Your task to perform on an android device: turn on sleep mode Image 0: 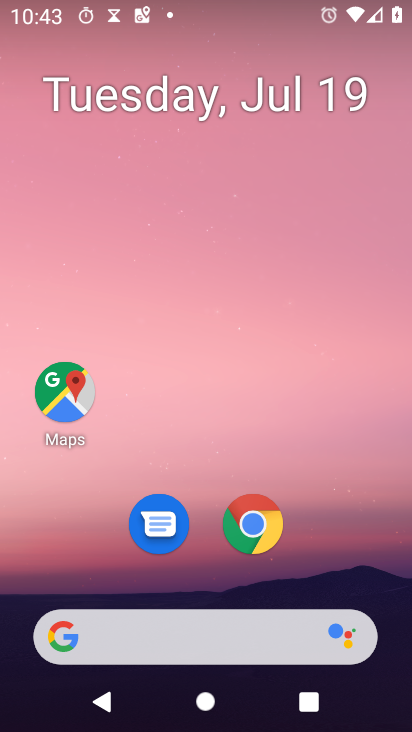
Step 0: drag from (202, 632) to (238, 174)
Your task to perform on an android device: turn on sleep mode Image 1: 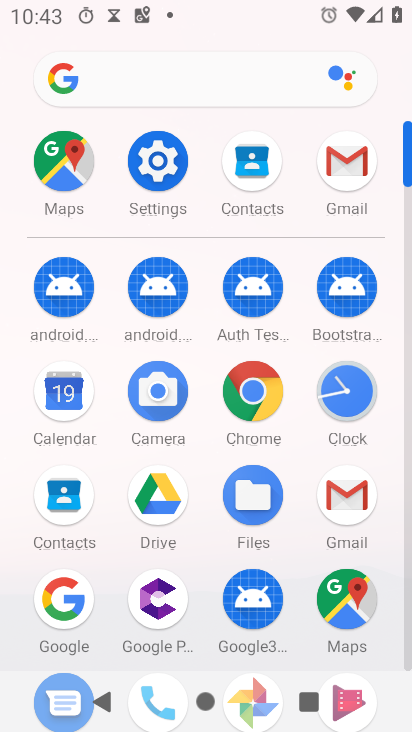
Step 1: click (158, 163)
Your task to perform on an android device: turn on sleep mode Image 2: 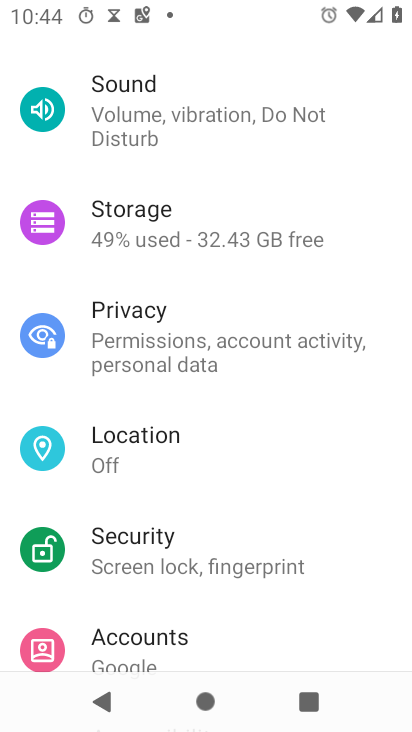
Step 2: drag from (280, 185) to (306, 672)
Your task to perform on an android device: turn on sleep mode Image 3: 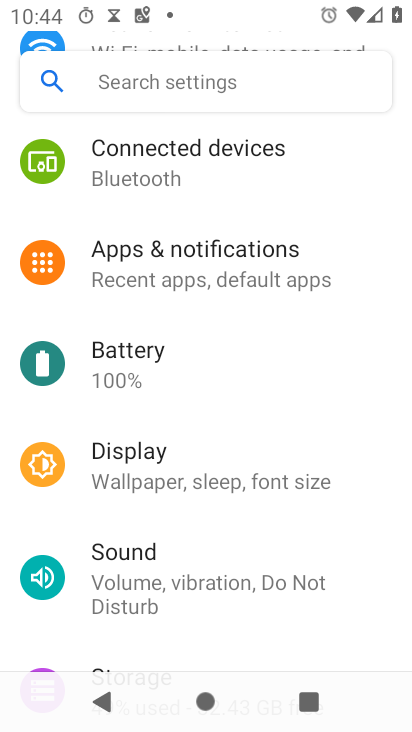
Step 3: click (152, 467)
Your task to perform on an android device: turn on sleep mode Image 4: 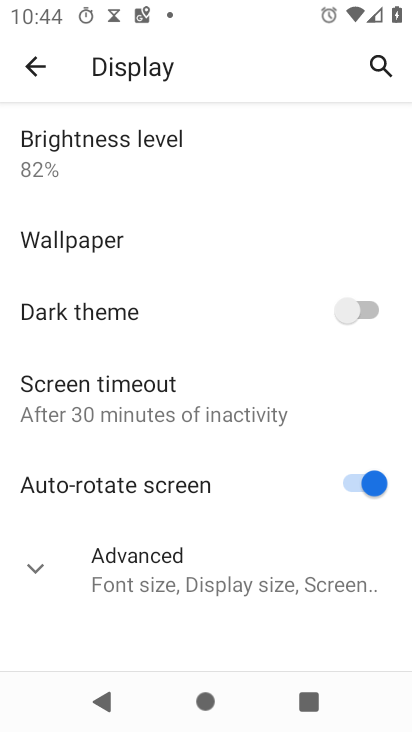
Step 4: task complete